Your task to perform on an android device: Open Google Chrome and open the bookmarks view Image 0: 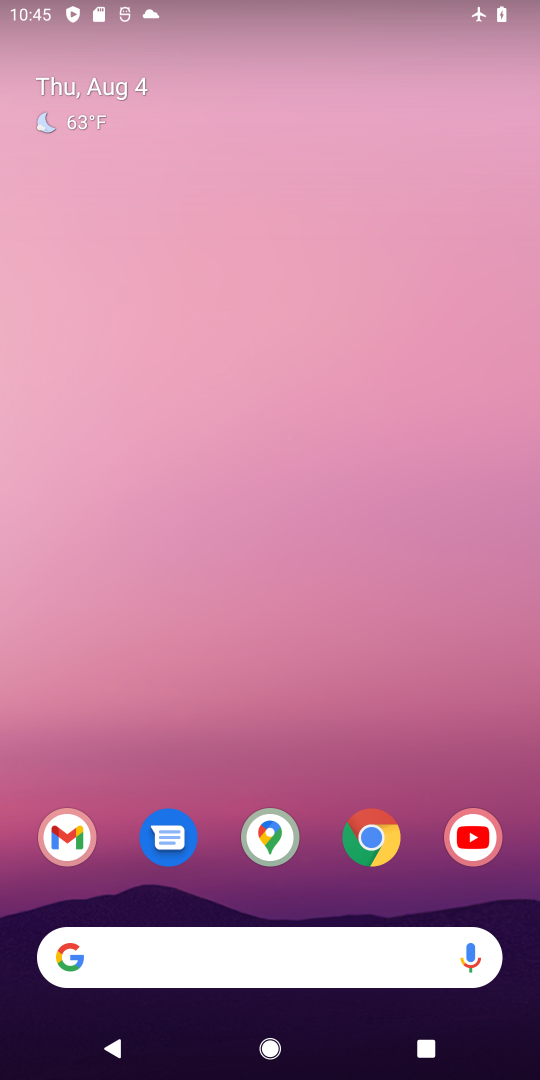
Step 0: drag from (284, 864) to (302, 275)
Your task to perform on an android device: Open Google Chrome and open the bookmarks view Image 1: 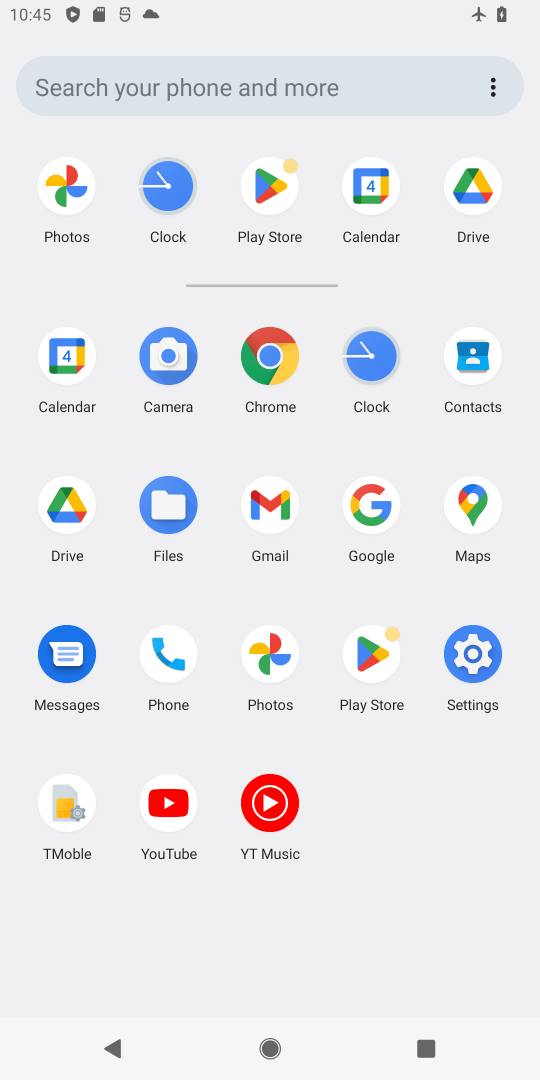
Step 1: click (279, 347)
Your task to perform on an android device: Open Google Chrome and open the bookmarks view Image 2: 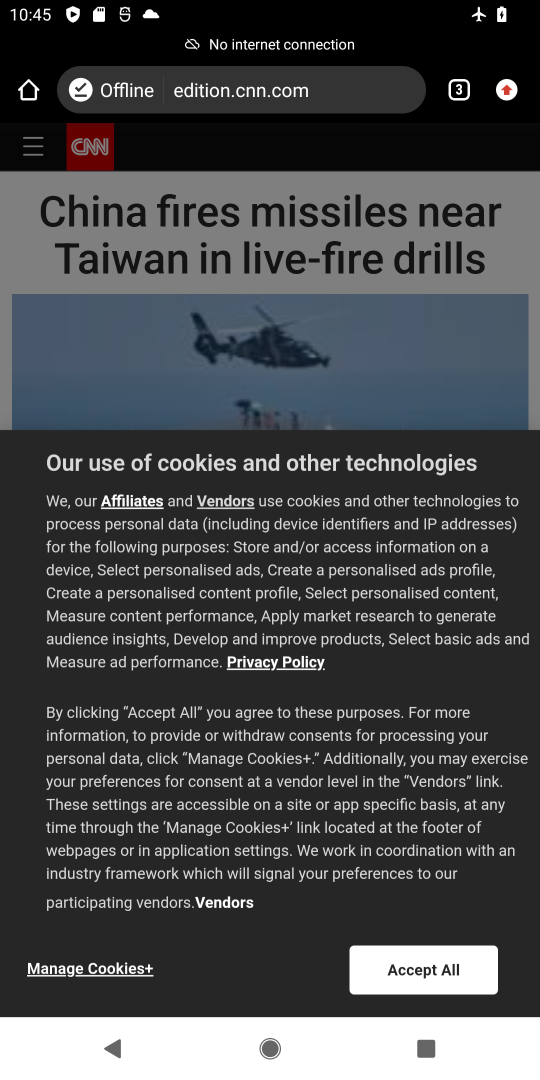
Step 2: click (514, 91)
Your task to perform on an android device: Open Google Chrome and open the bookmarks view Image 3: 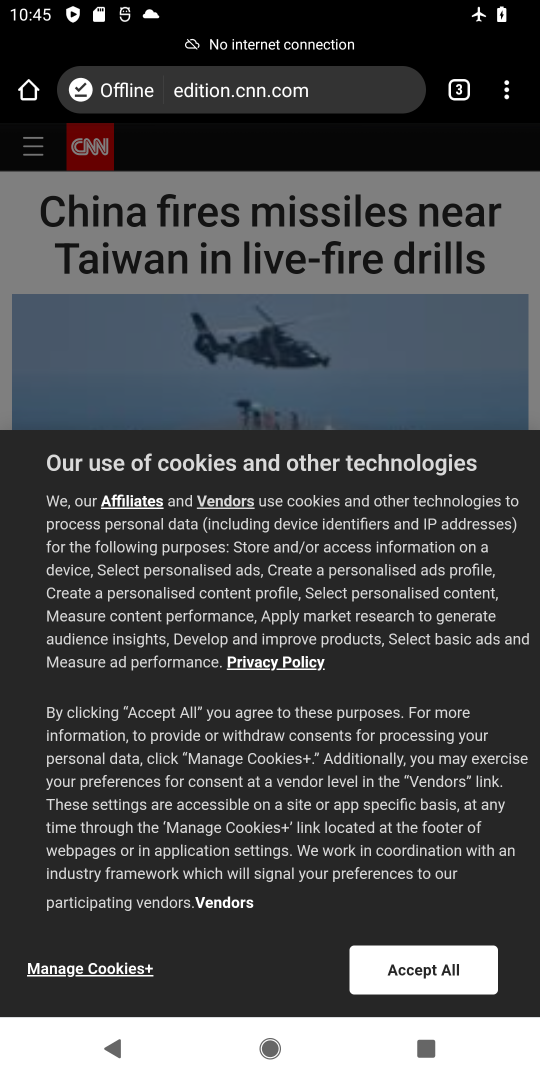
Step 3: click (514, 91)
Your task to perform on an android device: Open Google Chrome and open the bookmarks view Image 4: 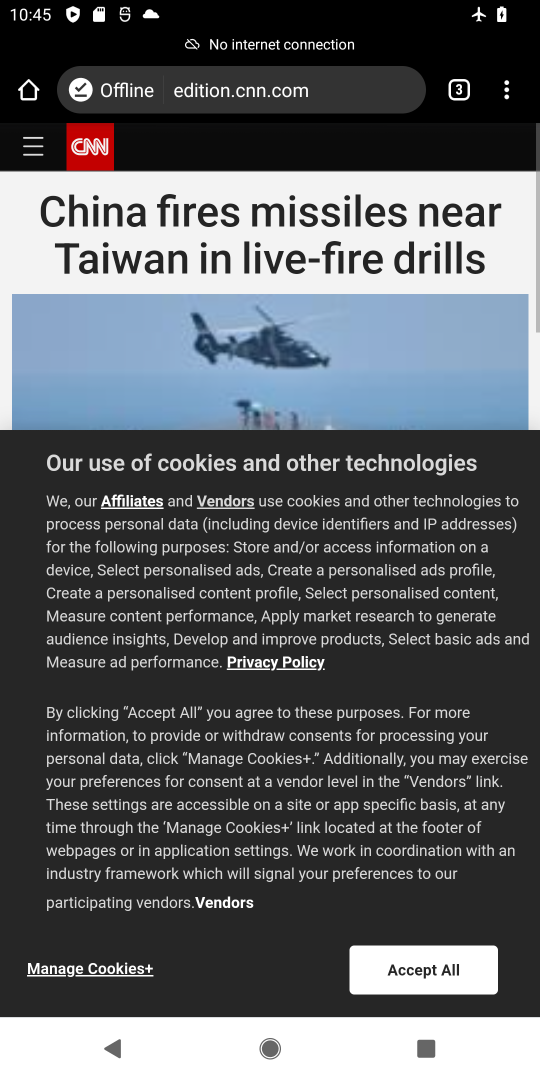
Step 4: click (514, 91)
Your task to perform on an android device: Open Google Chrome and open the bookmarks view Image 5: 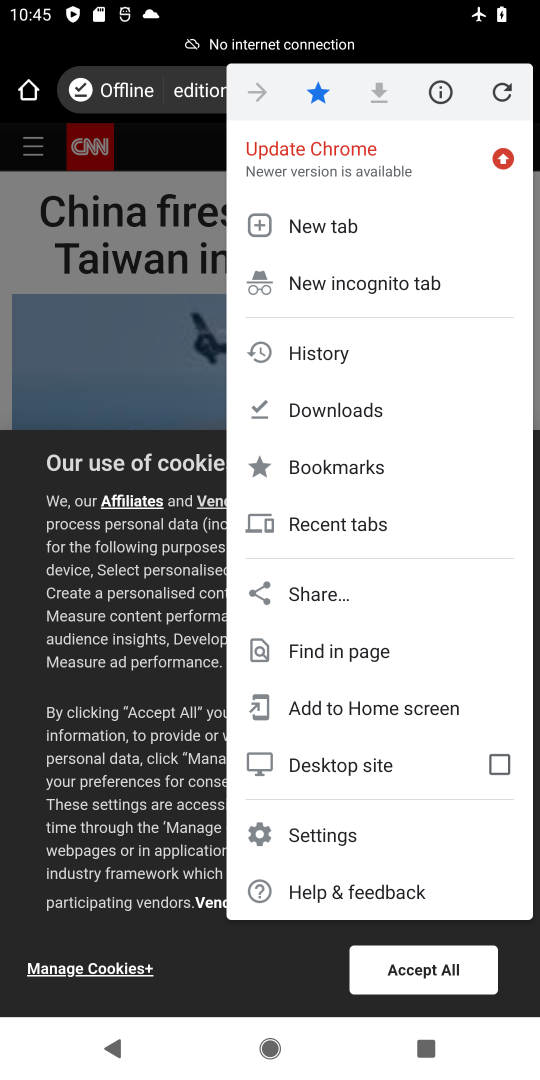
Step 5: click (351, 465)
Your task to perform on an android device: Open Google Chrome and open the bookmarks view Image 6: 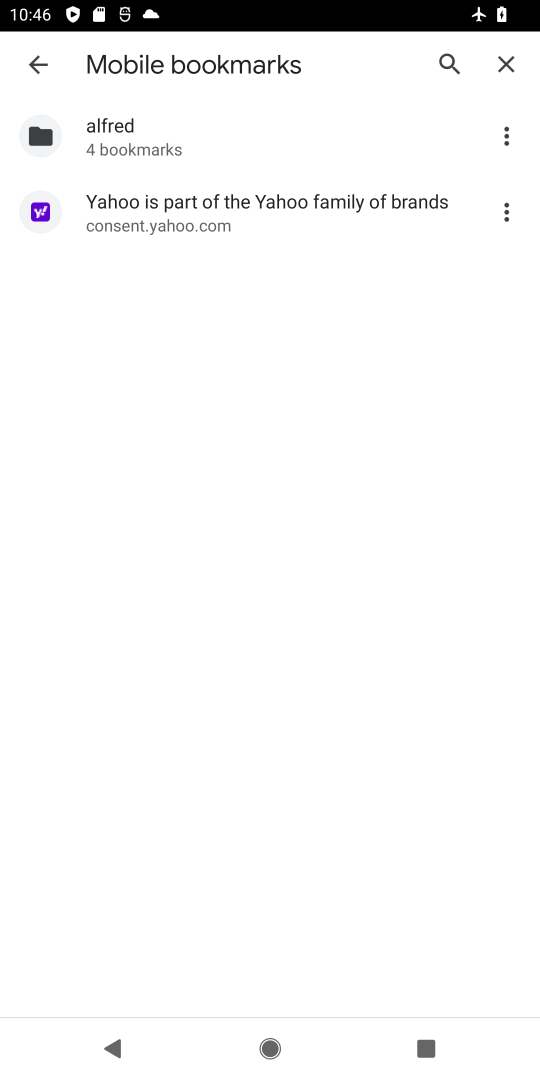
Step 6: task complete